Your task to perform on an android device: snooze an email in the gmail app Image 0: 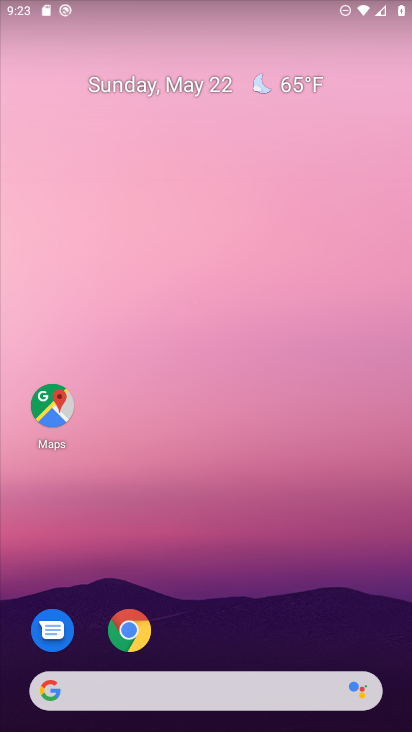
Step 0: press home button
Your task to perform on an android device: snooze an email in the gmail app Image 1: 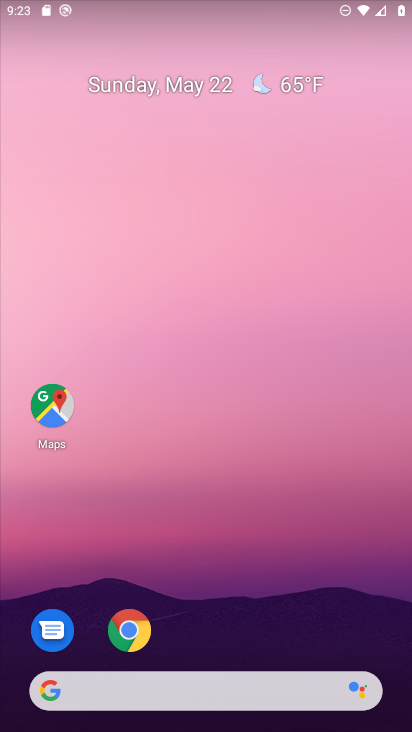
Step 1: drag from (134, 687) to (264, 237)
Your task to perform on an android device: snooze an email in the gmail app Image 2: 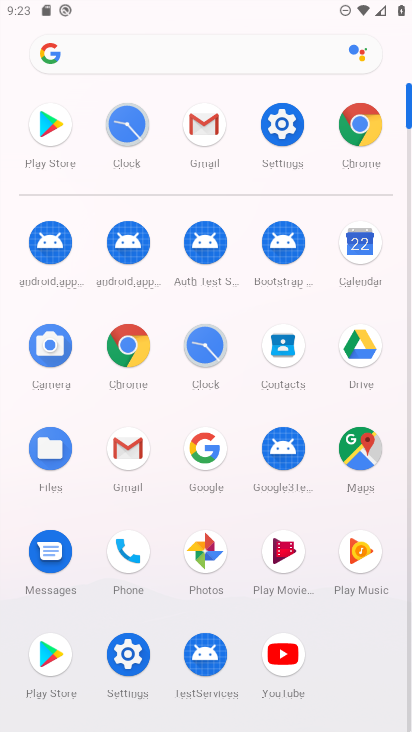
Step 2: click (205, 136)
Your task to perform on an android device: snooze an email in the gmail app Image 3: 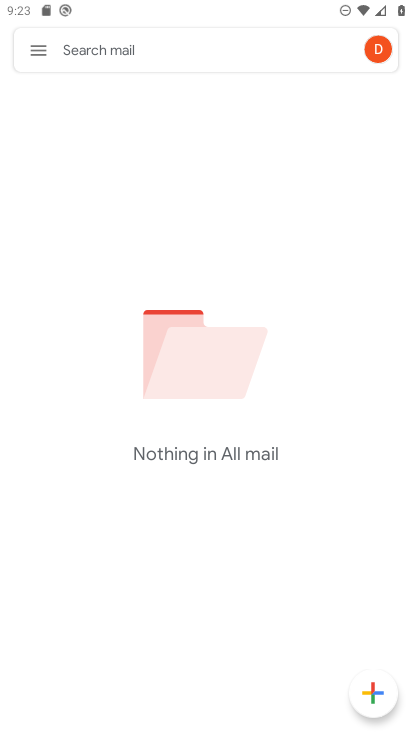
Step 3: task complete